Your task to perform on an android device: toggle improve location accuracy Image 0: 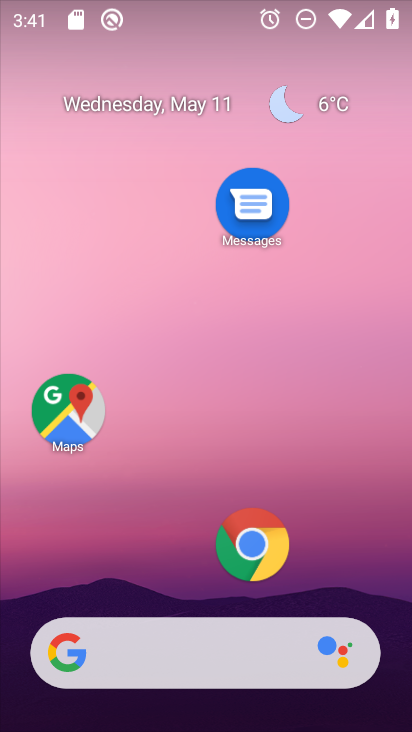
Step 0: drag from (195, 496) to (304, 80)
Your task to perform on an android device: toggle improve location accuracy Image 1: 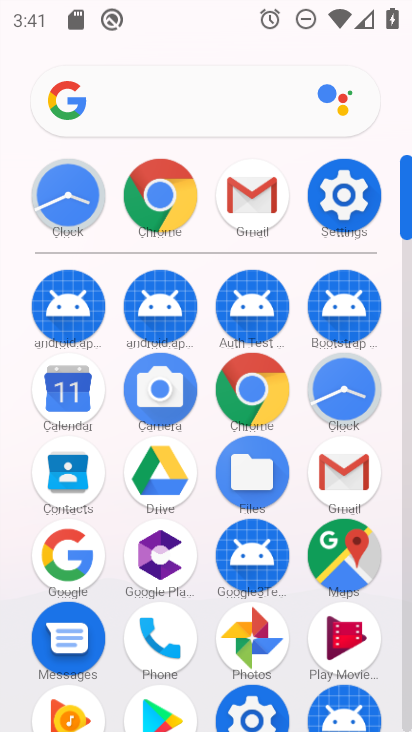
Step 1: click (353, 207)
Your task to perform on an android device: toggle improve location accuracy Image 2: 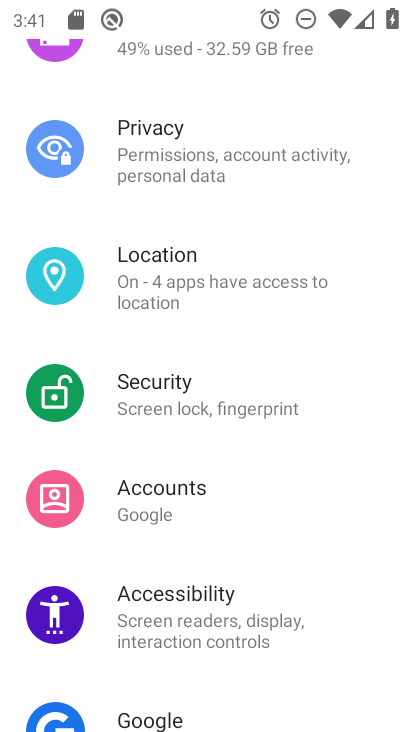
Step 2: drag from (218, 612) to (349, 141)
Your task to perform on an android device: toggle improve location accuracy Image 3: 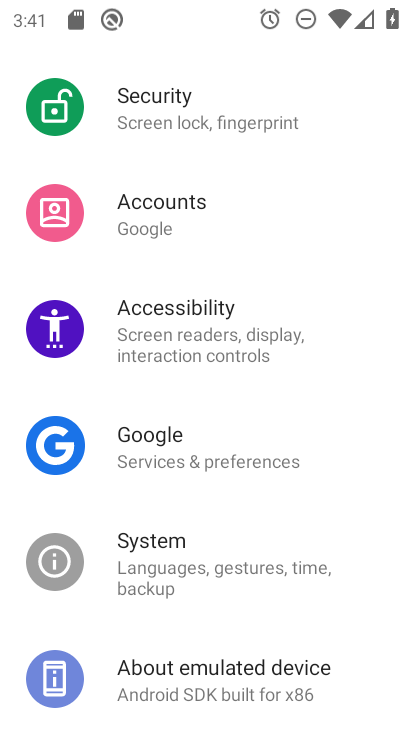
Step 3: drag from (155, 663) to (291, 164)
Your task to perform on an android device: toggle improve location accuracy Image 4: 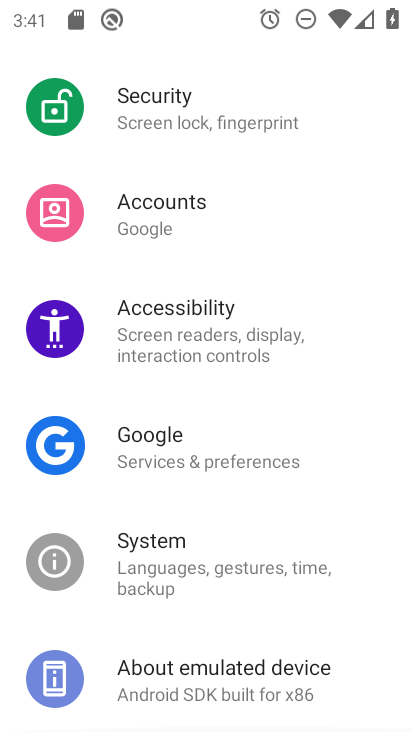
Step 4: drag from (255, 161) to (164, 714)
Your task to perform on an android device: toggle improve location accuracy Image 5: 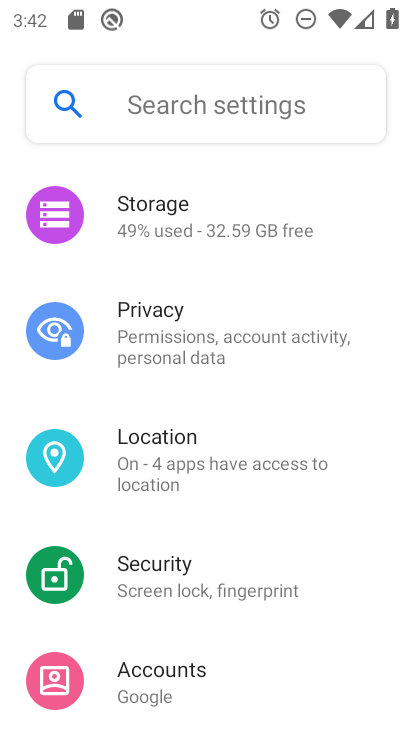
Step 5: click (130, 456)
Your task to perform on an android device: toggle improve location accuracy Image 6: 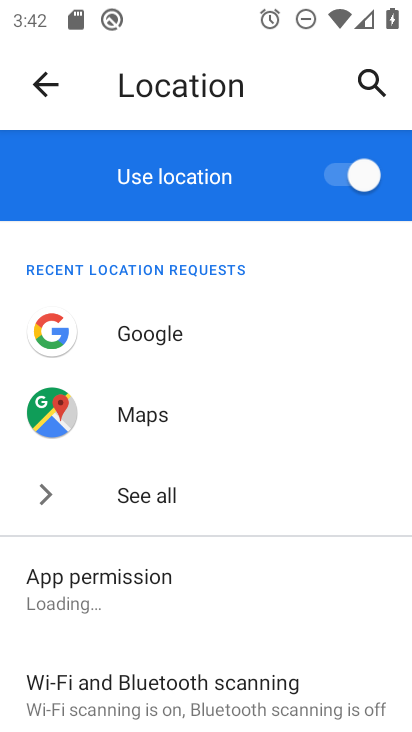
Step 6: drag from (154, 652) to (296, 278)
Your task to perform on an android device: toggle improve location accuracy Image 7: 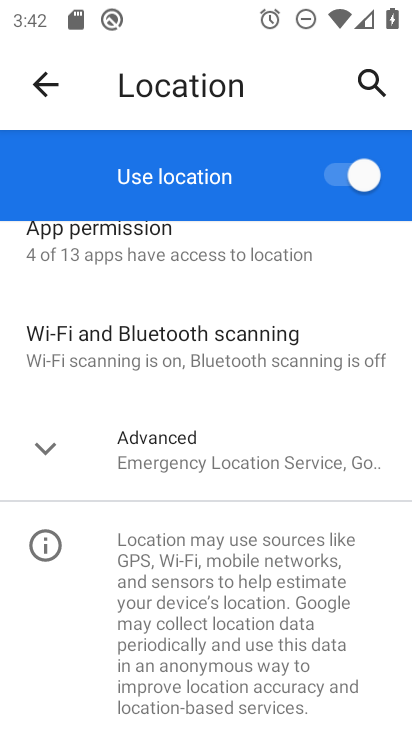
Step 7: click (224, 453)
Your task to perform on an android device: toggle improve location accuracy Image 8: 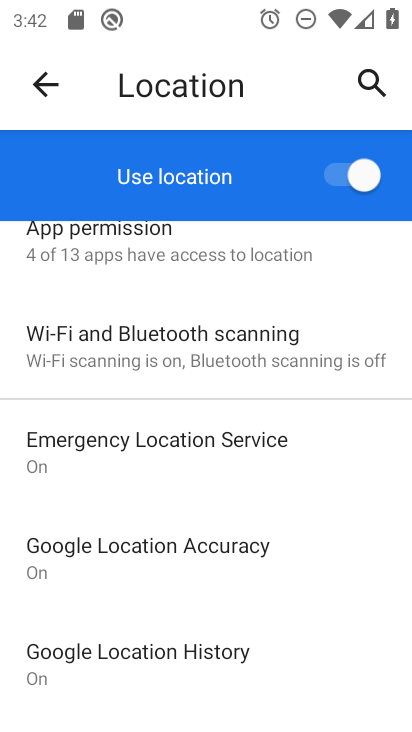
Step 8: click (185, 556)
Your task to perform on an android device: toggle improve location accuracy Image 9: 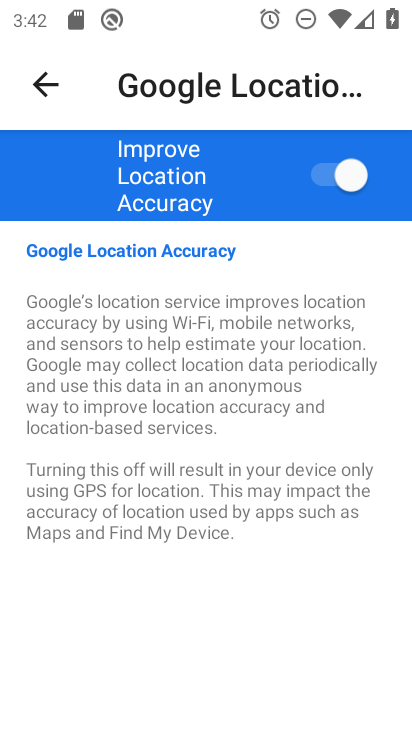
Step 9: click (333, 176)
Your task to perform on an android device: toggle improve location accuracy Image 10: 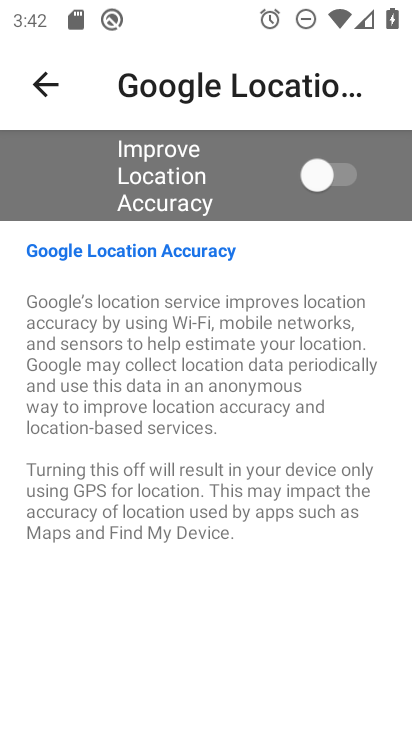
Step 10: task complete